Your task to perform on an android device: turn on priority inbox in the gmail app Image 0: 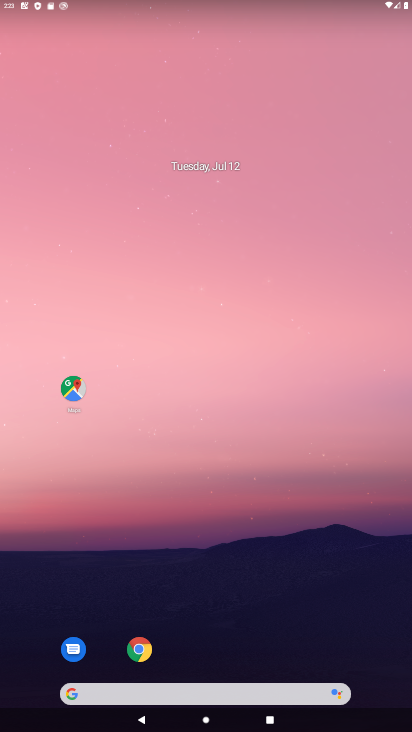
Step 0: drag from (269, 323) to (75, 22)
Your task to perform on an android device: turn on priority inbox in the gmail app Image 1: 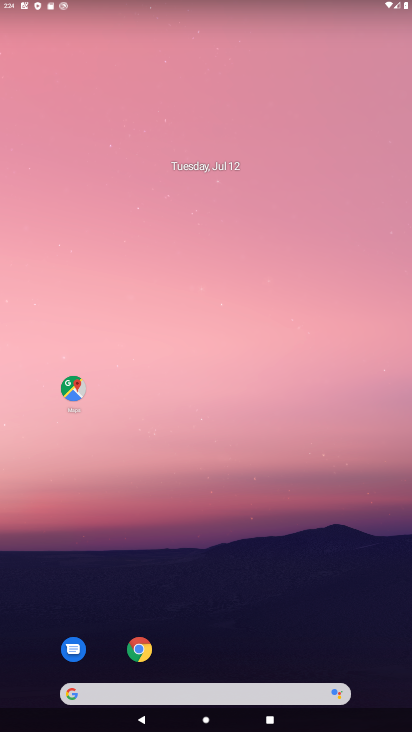
Step 1: click (93, 183)
Your task to perform on an android device: turn on priority inbox in the gmail app Image 2: 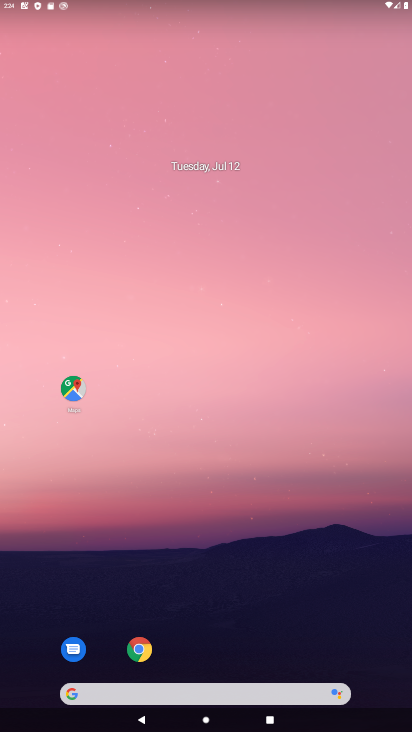
Step 2: drag from (232, 621) to (258, 85)
Your task to perform on an android device: turn on priority inbox in the gmail app Image 3: 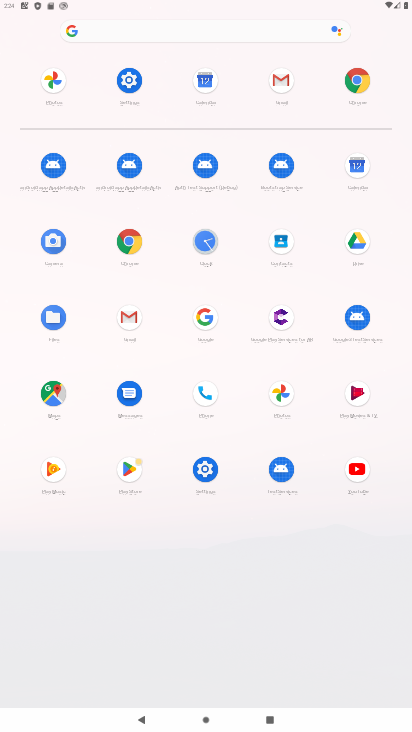
Step 3: click (261, 81)
Your task to perform on an android device: turn on priority inbox in the gmail app Image 4: 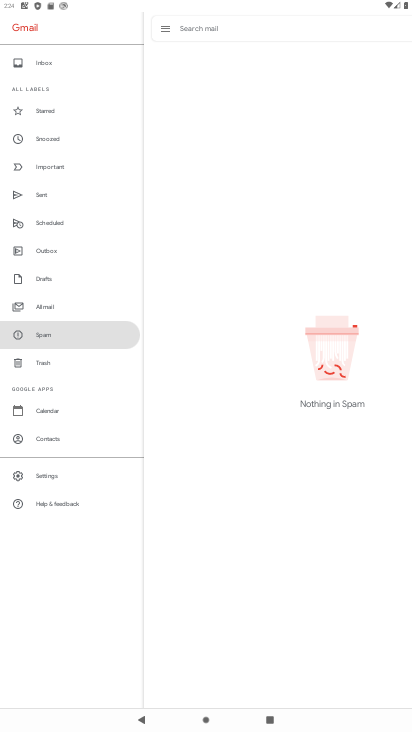
Step 4: click (54, 475)
Your task to perform on an android device: turn on priority inbox in the gmail app Image 5: 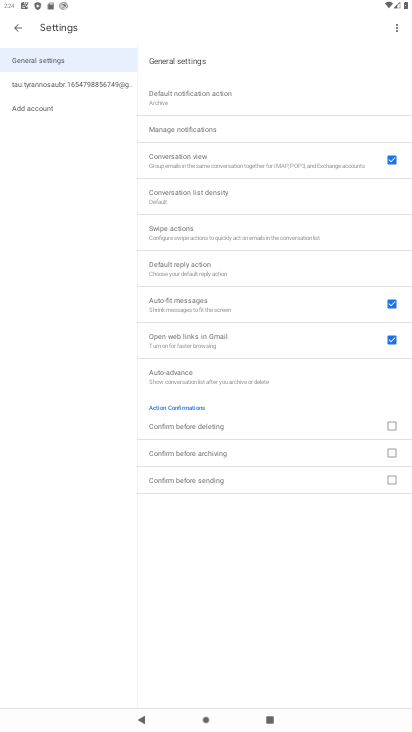
Step 5: click (103, 79)
Your task to perform on an android device: turn on priority inbox in the gmail app Image 6: 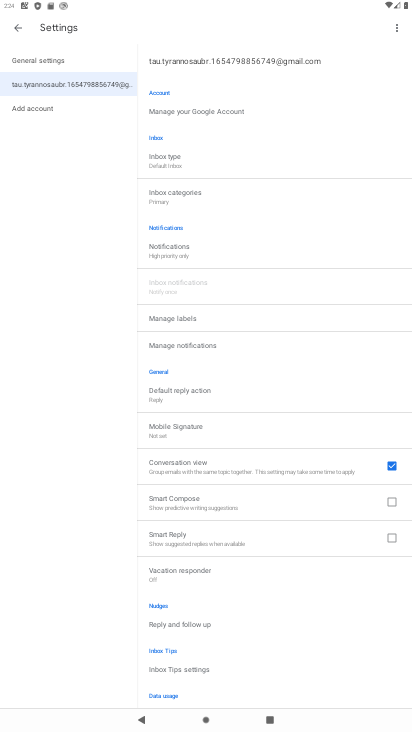
Step 6: click (200, 247)
Your task to perform on an android device: turn on priority inbox in the gmail app Image 7: 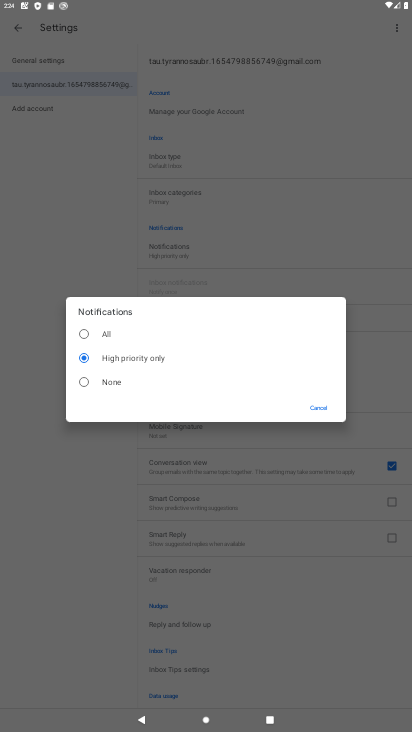
Step 7: click (129, 336)
Your task to perform on an android device: turn on priority inbox in the gmail app Image 8: 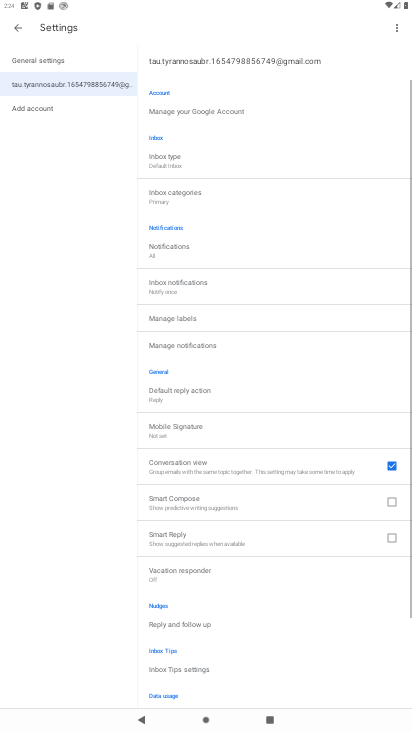
Step 8: task complete